Your task to perform on an android device: Open Wikipedia Image 0: 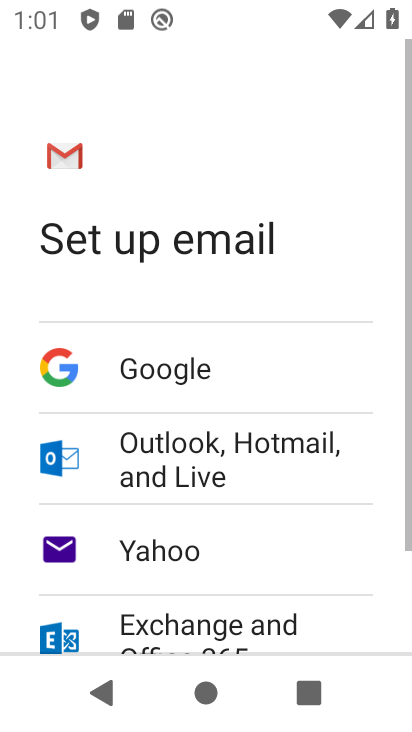
Step 0: press home button
Your task to perform on an android device: Open Wikipedia Image 1: 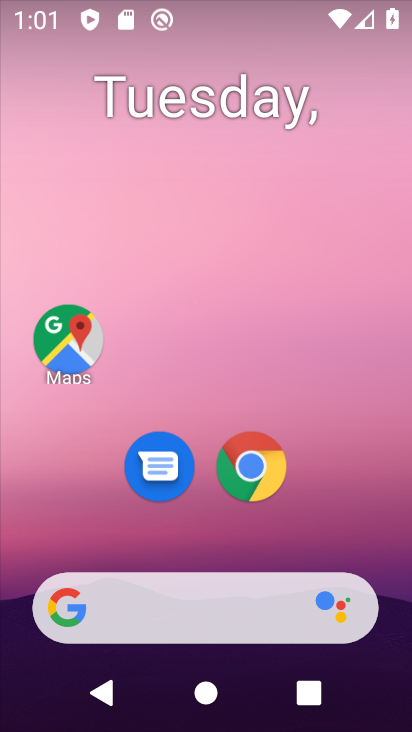
Step 1: click (246, 468)
Your task to perform on an android device: Open Wikipedia Image 2: 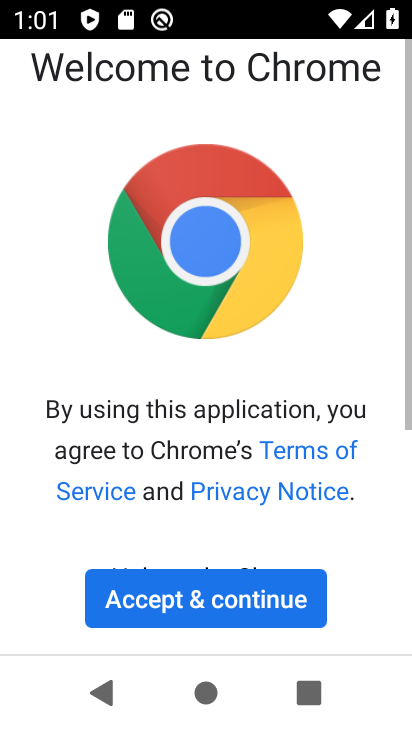
Step 2: click (221, 606)
Your task to perform on an android device: Open Wikipedia Image 3: 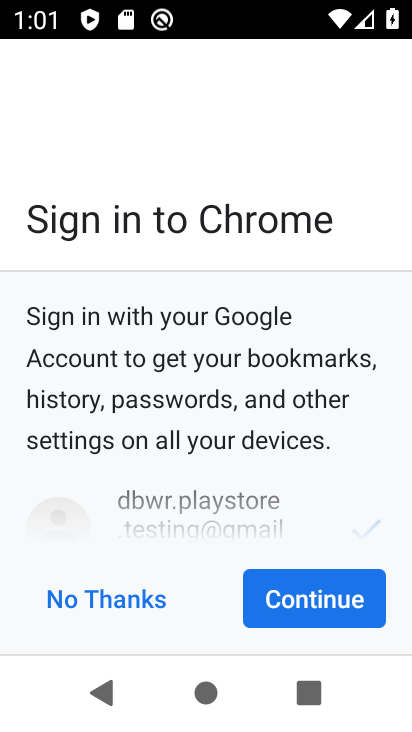
Step 3: click (298, 597)
Your task to perform on an android device: Open Wikipedia Image 4: 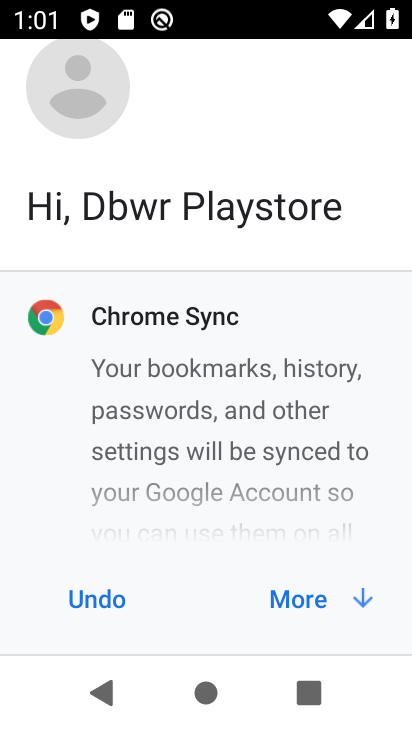
Step 4: click (298, 610)
Your task to perform on an android device: Open Wikipedia Image 5: 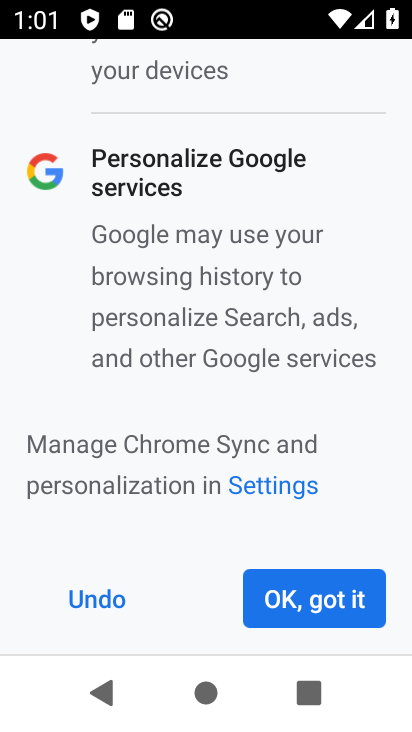
Step 5: click (298, 602)
Your task to perform on an android device: Open Wikipedia Image 6: 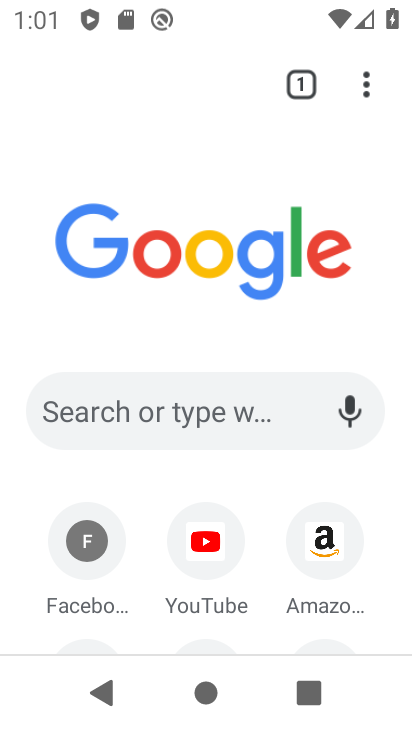
Step 6: click (141, 427)
Your task to perform on an android device: Open Wikipedia Image 7: 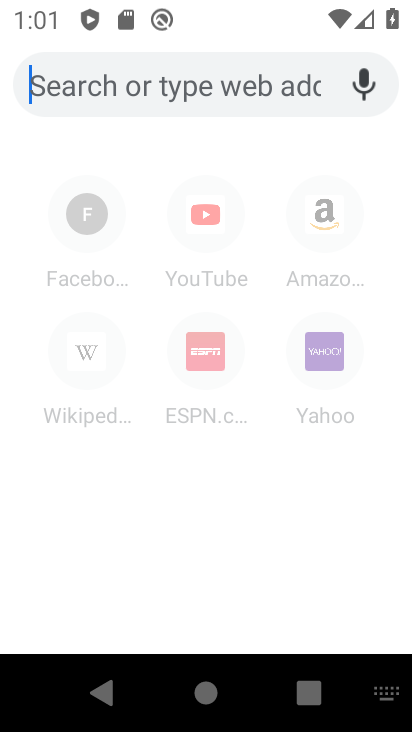
Step 7: type "Wikipedia"
Your task to perform on an android device: Open Wikipedia Image 8: 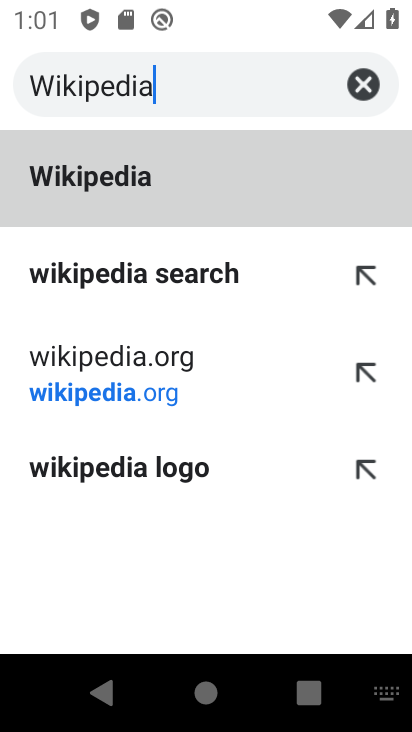
Step 8: click (134, 178)
Your task to perform on an android device: Open Wikipedia Image 9: 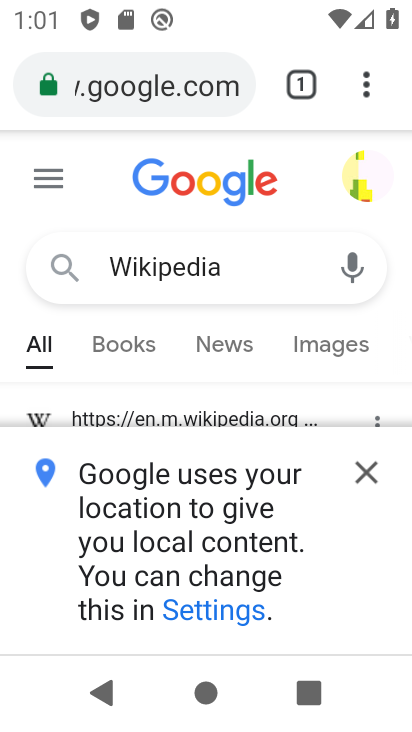
Step 9: drag from (129, 402) to (72, 218)
Your task to perform on an android device: Open Wikipedia Image 10: 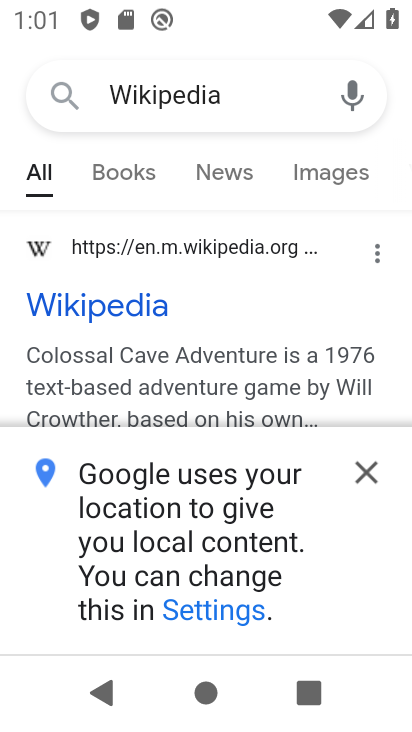
Step 10: click (82, 300)
Your task to perform on an android device: Open Wikipedia Image 11: 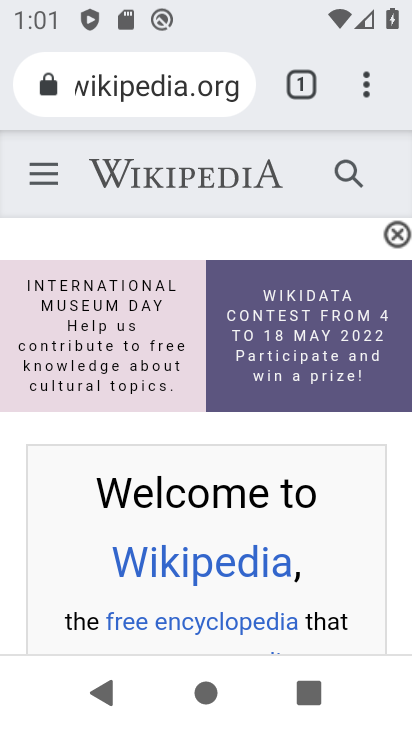
Step 11: task complete